Your task to perform on an android device: turn off wifi Image 0: 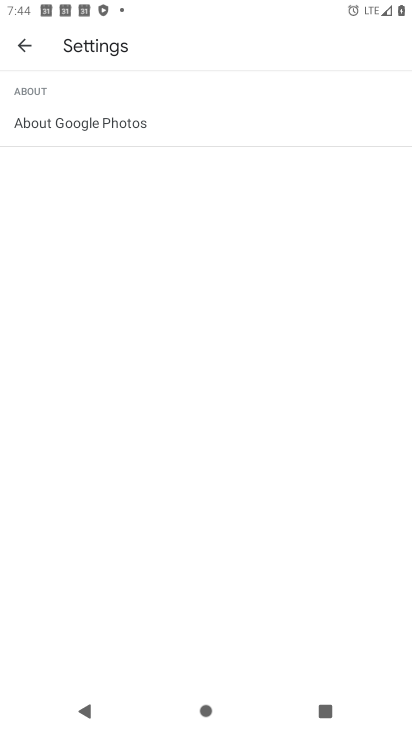
Step 0: press home button
Your task to perform on an android device: turn off wifi Image 1: 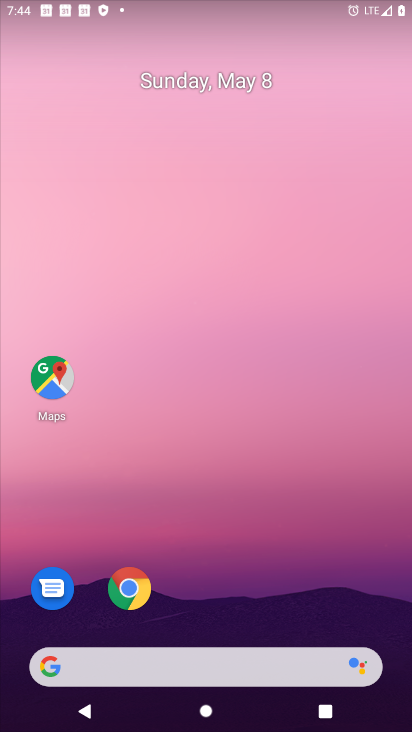
Step 1: drag from (215, 663) to (406, 85)
Your task to perform on an android device: turn off wifi Image 2: 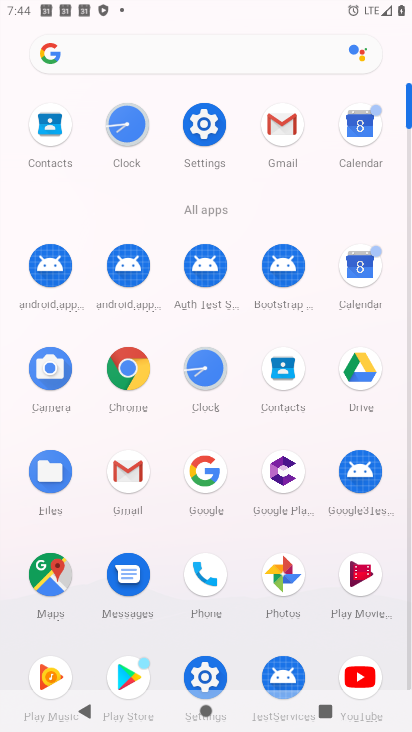
Step 2: click (226, 129)
Your task to perform on an android device: turn off wifi Image 3: 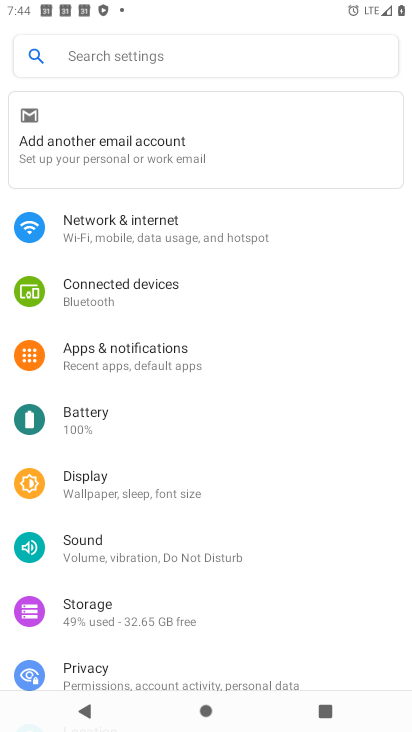
Step 3: click (152, 241)
Your task to perform on an android device: turn off wifi Image 4: 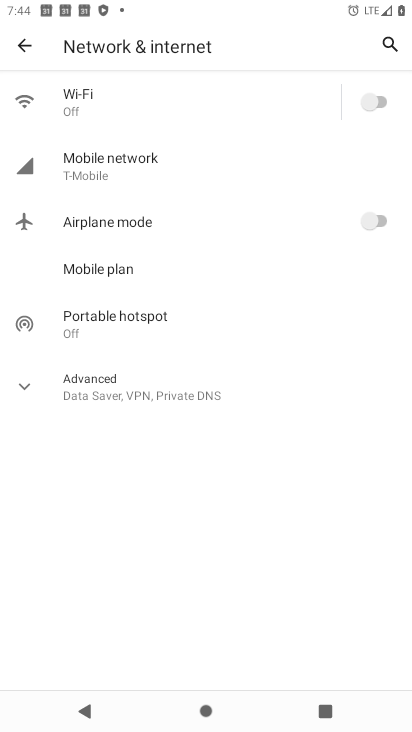
Step 4: task complete